Your task to perform on an android device: find snoozed emails in the gmail app Image 0: 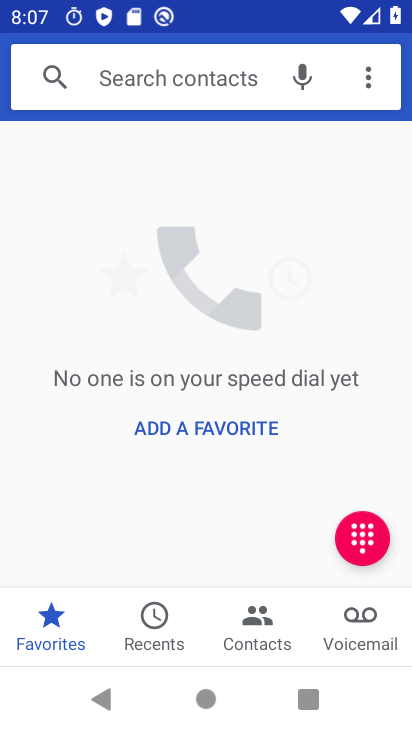
Step 0: press home button
Your task to perform on an android device: find snoozed emails in the gmail app Image 1: 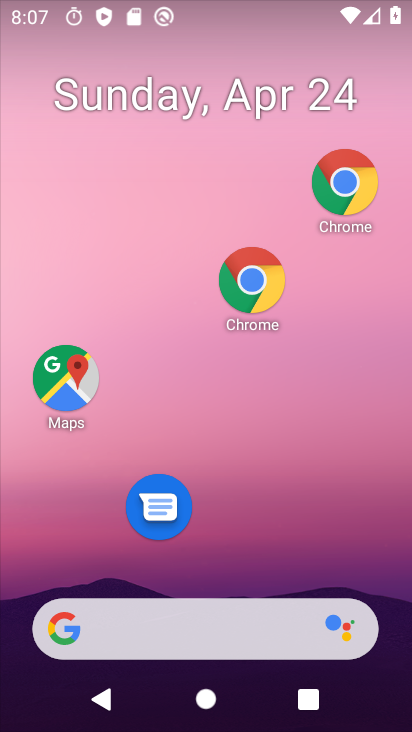
Step 1: drag from (90, 236) to (99, 4)
Your task to perform on an android device: find snoozed emails in the gmail app Image 2: 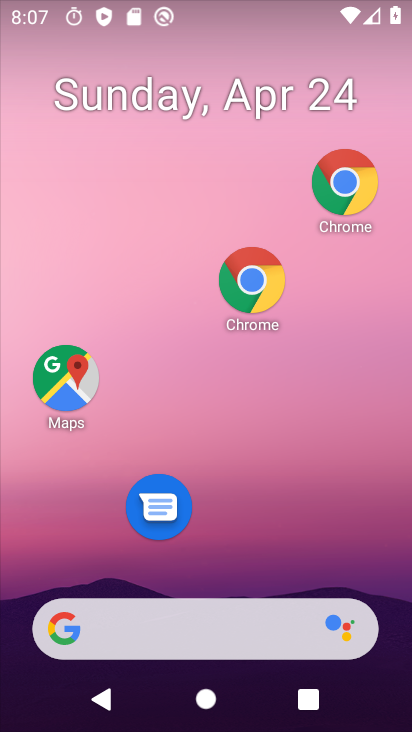
Step 2: drag from (258, 413) to (154, 18)
Your task to perform on an android device: find snoozed emails in the gmail app Image 3: 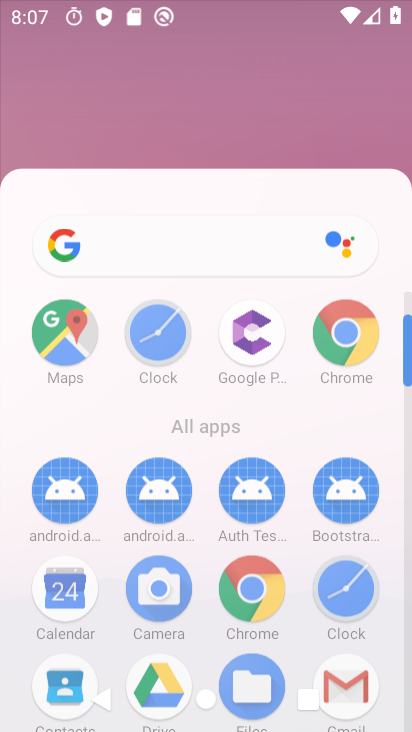
Step 3: drag from (334, 594) to (103, 4)
Your task to perform on an android device: find snoozed emails in the gmail app Image 4: 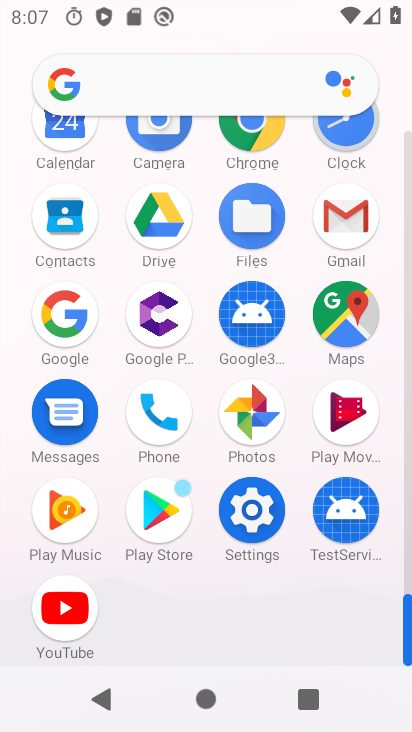
Step 4: click (345, 222)
Your task to perform on an android device: find snoozed emails in the gmail app Image 5: 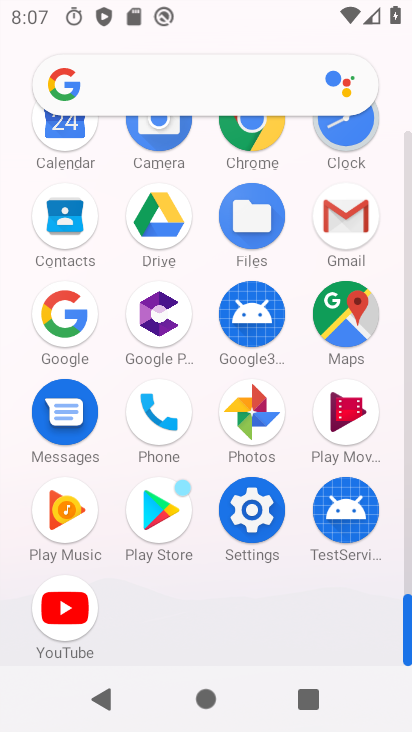
Step 5: click (349, 222)
Your task to perform on an android device: find snoozed emails in the gmail app Image 6: 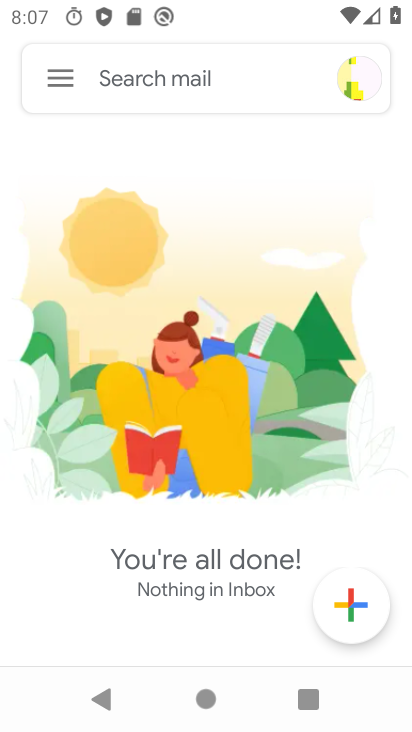
Step 6: click (64, 80)
Your task to perform on an android device: find snoozed emails in the gmail app Image 7: 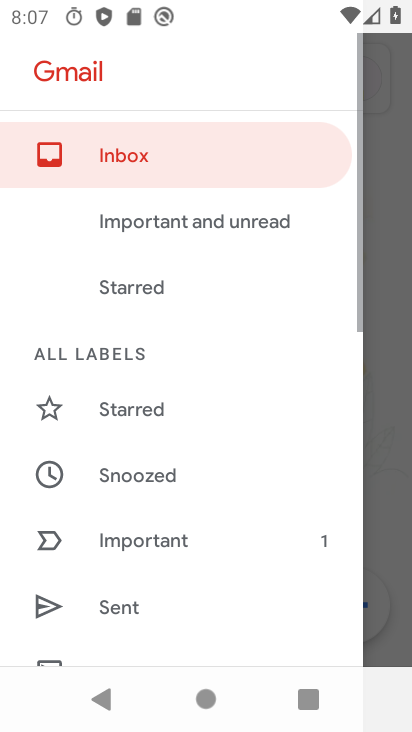
Step 7: drag from (190, 599) to (139, 129)
Your task to perform on an android device: find snoozed emails in the gmail app Image 8: 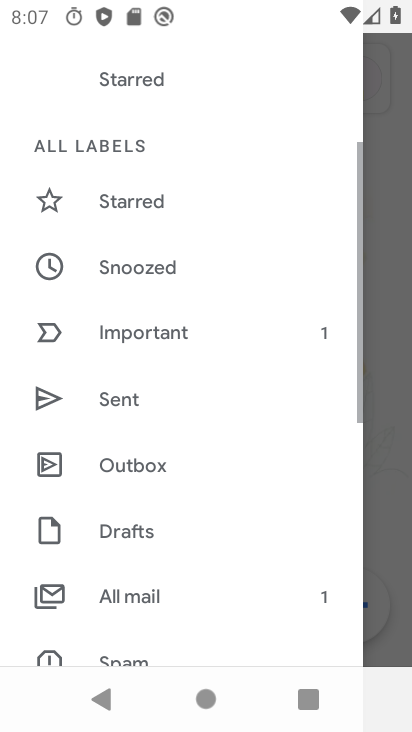
Step 8: drag from (184, 677) to (127, 169)
Your task to perform on an android device: find snoozed emails in the gmail app Image 9: 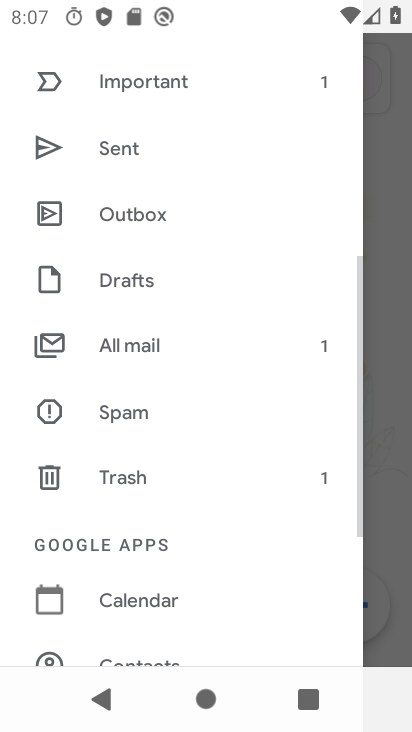
Step 9: click (136, 352)
Your task to perform on an android device: find snoozed emails in the gmail app Image 10: 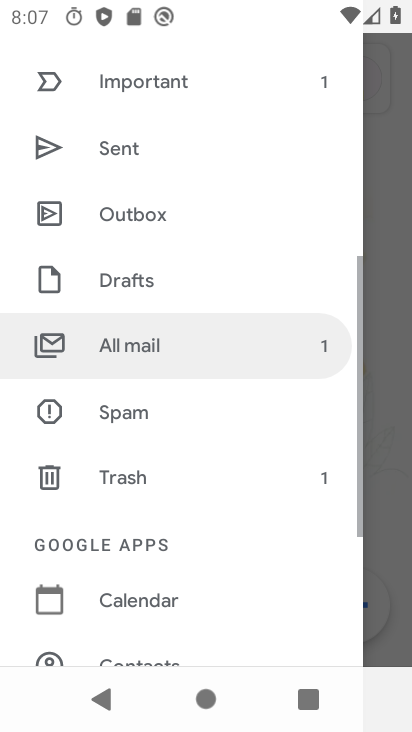
Step 10: click (137, 351)
Your task to perform on an android device: find snoozed emails in the gmail app Image 11: 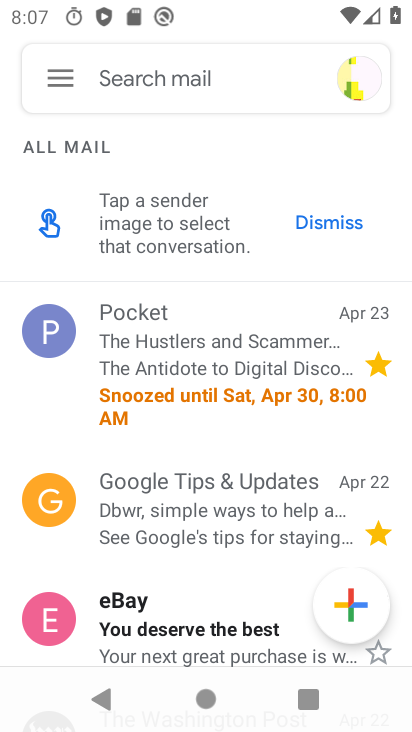
Step 11: click (180, 355)
Your task to perform on an android device: find snoozed emails in the gmail app Image 12: 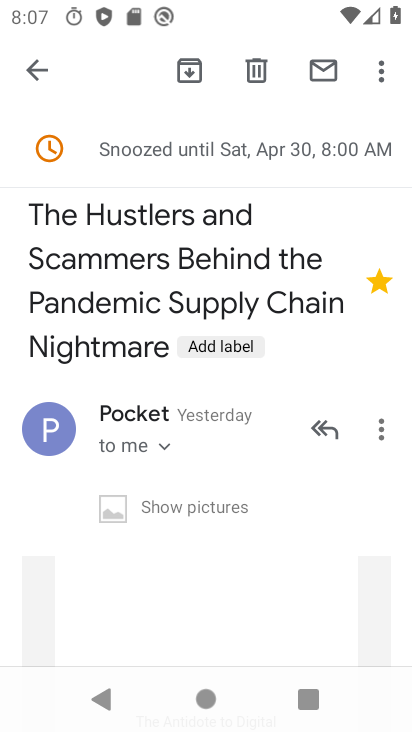
Step 12: task complete